Your task to perform on an android device: open app "Airtel Thanks" Image 0: 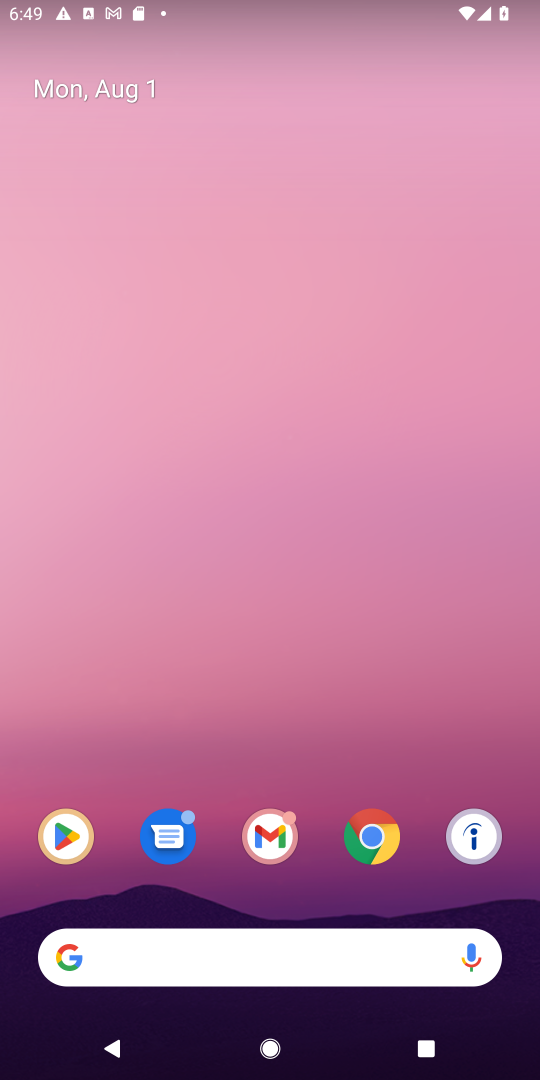
Step 0: press home button
Your task to perform on an android device: open app "Airtel Thanks" Image 1: 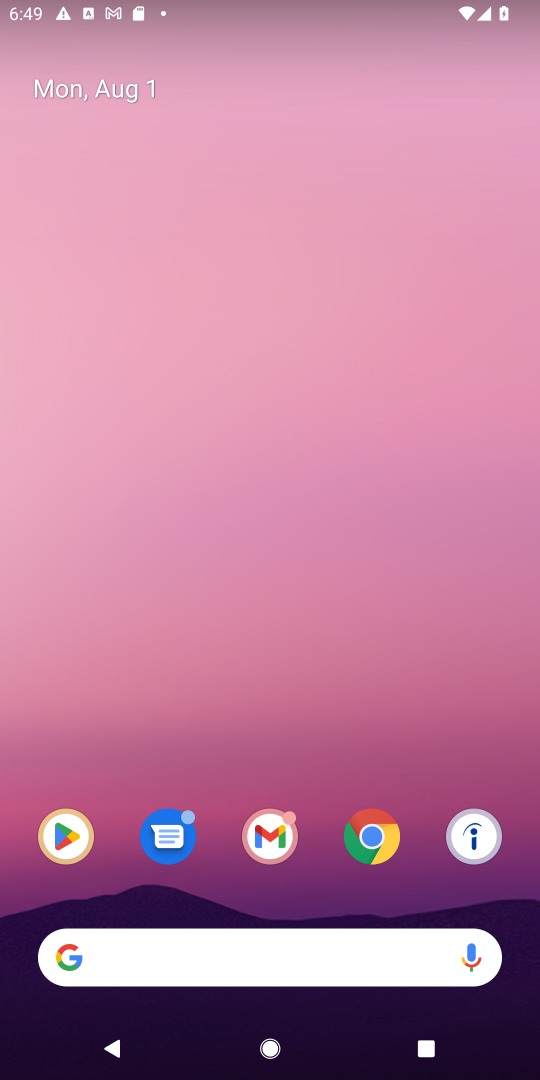
Step 1: click (67, 834)
Your task to perform on an android device: open app "Airtel Thanks" Image 2: 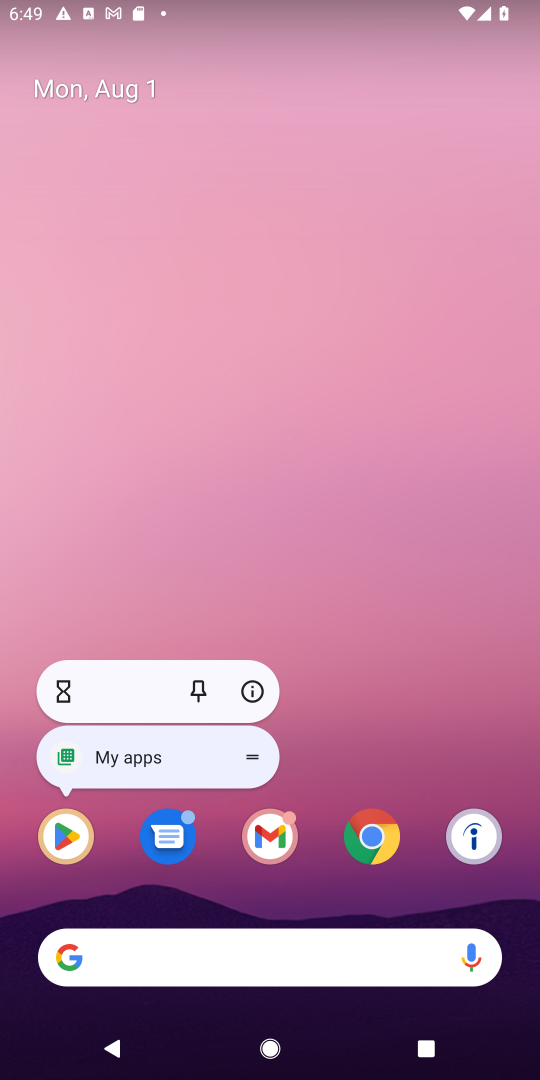
Step 2: click (52, 859)
Your task to perform on an android device: open app "Airtel Thanks" Image 3: 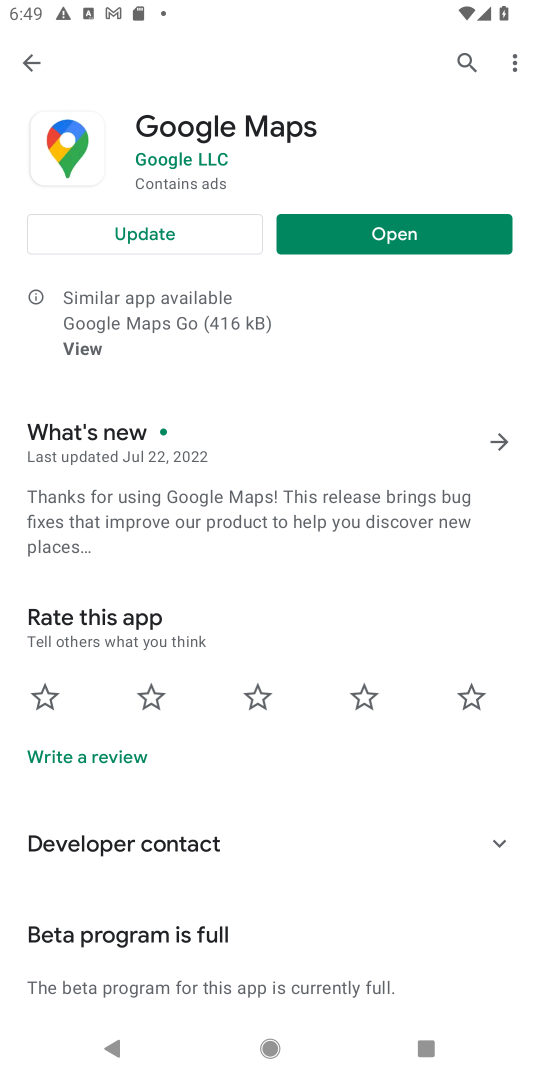
Step 3: click (461, 61)
Your task to perform on an android device: open app "Airtel Thanks" Image 4: 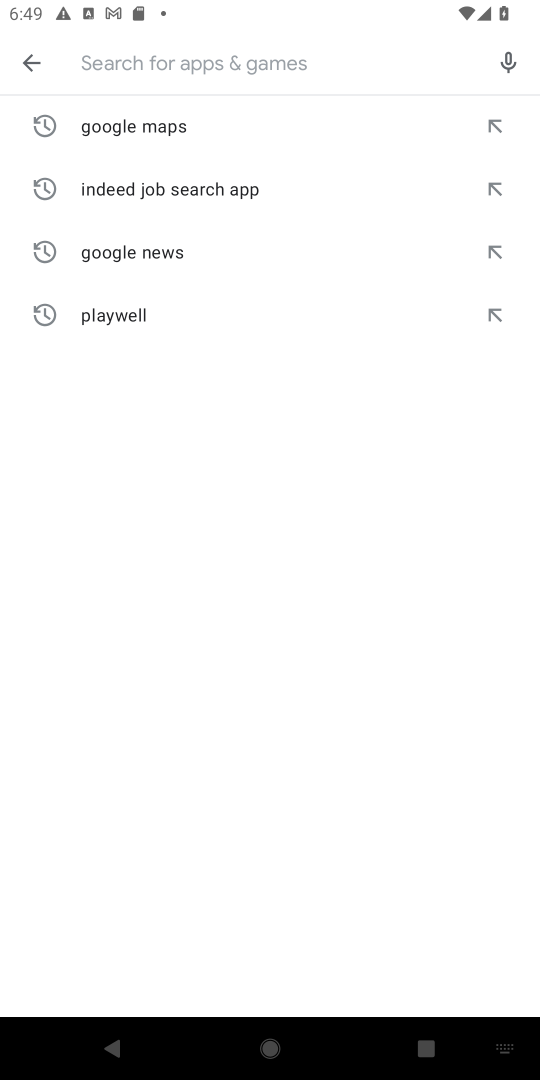
Step 4: type "Airtel Thanks"
Your task to perform on an android device: open app "Airtel Thanks" Image 5: 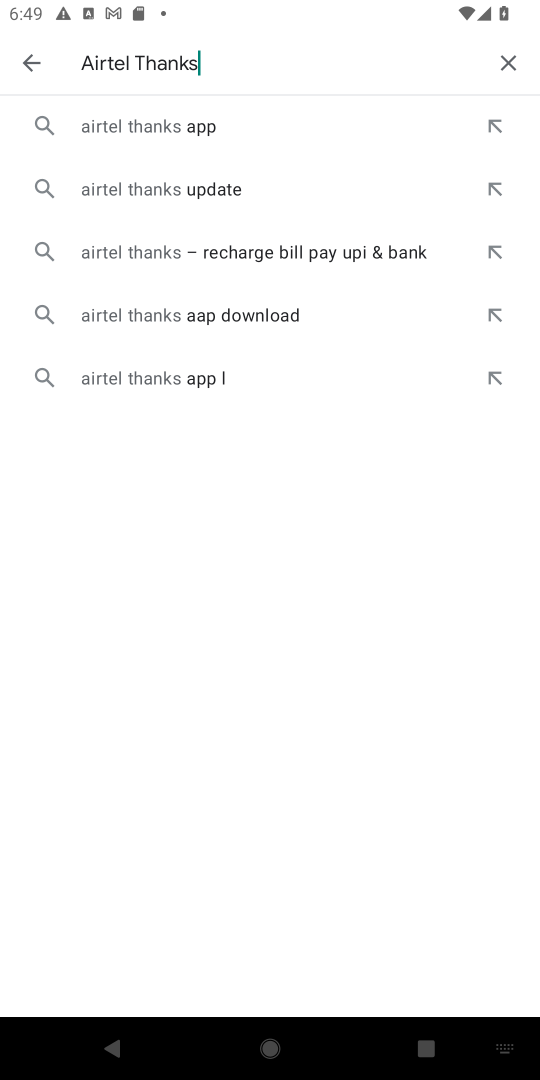
Step 5: click (155, 127)
Your task to perform on an android device: open app "Airtel Thanks" Image 6: 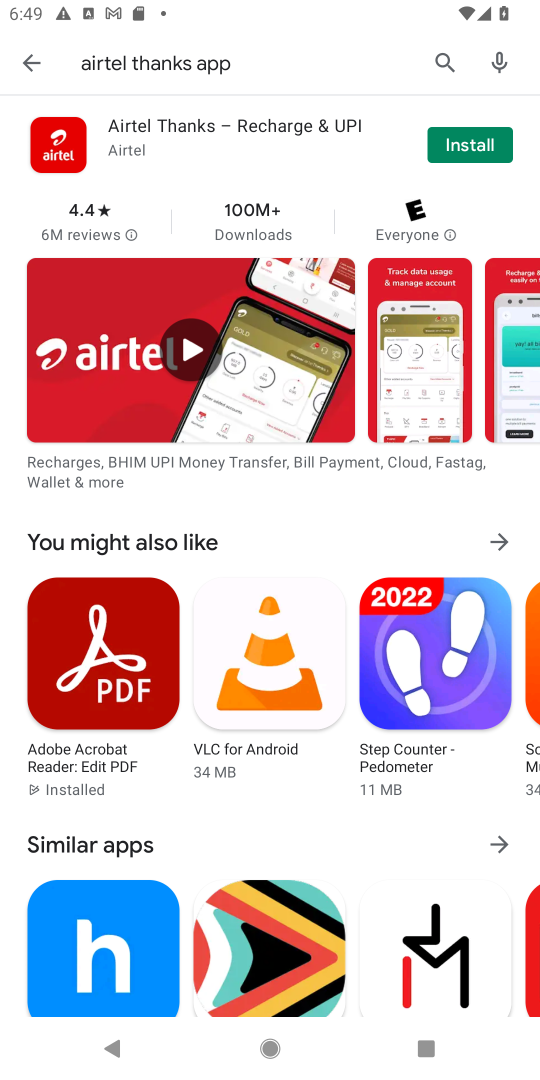
Step 6: task complete